Your task to perform on an android device: turn notification dots on Image 0: 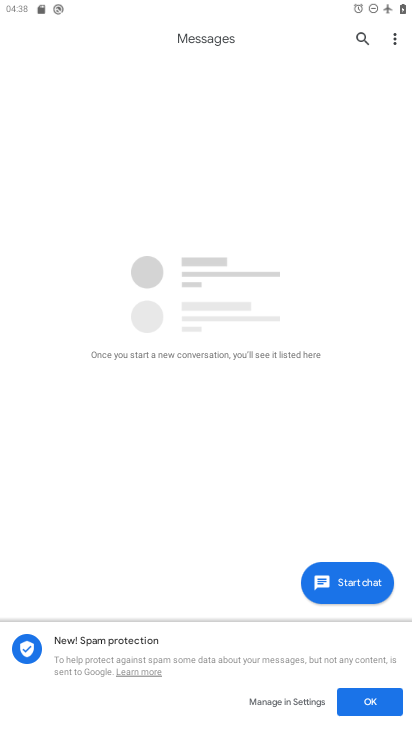
Step 0: press home button
Your task to perform on an android device: turn notification dots on Image 1: 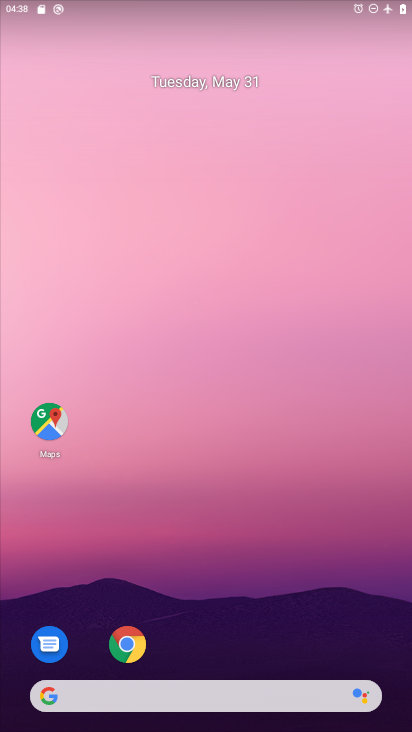
Step 1: drag from (291, 596) to (234, 162)
Your task to perform on an android device: turn notification dots on Image 2: 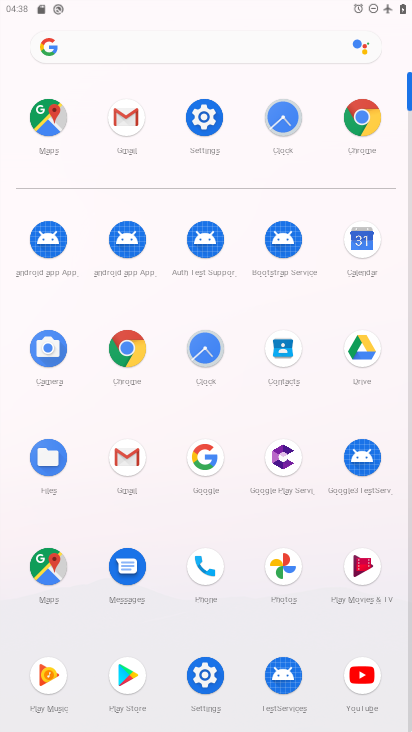
Step 2: click (207, 124)
Your task to perform on an android device: turn notification dots on Image 3: 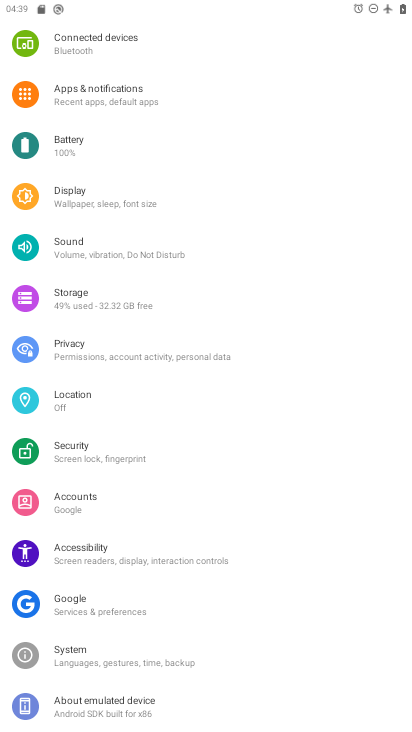
Step 3: click (118, 99)
Your task to perform on an android device: turn notification dots on Image 4: 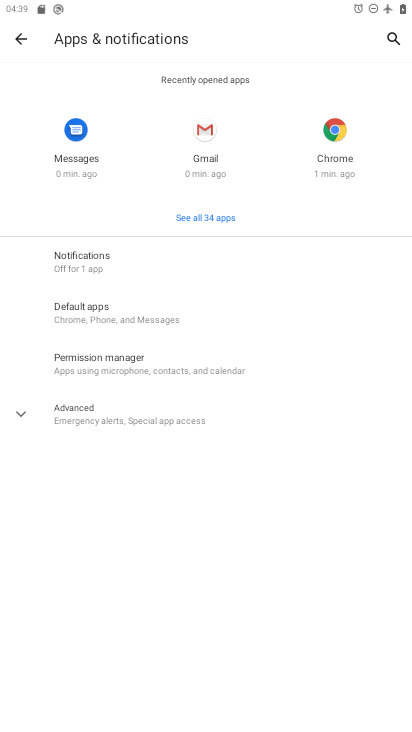
Step 4: click (126, 263)
Your task to perform on an android device: turn notification dots on Image 5: 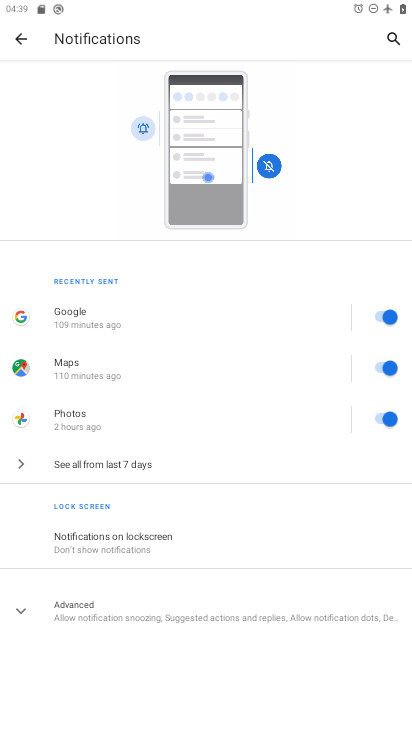
Step 5: click (49, 616)
Your task to perform on an android device: turn notification dots on Image 6: 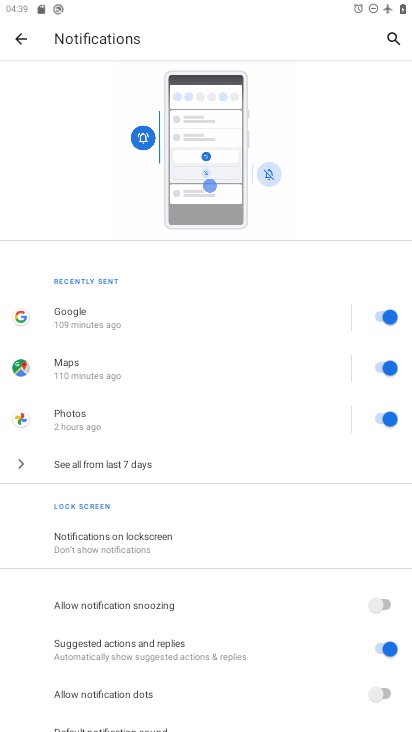
Step 6: click (390, 695)
Your task to perform on an android device: turn notification dots on Image 7: 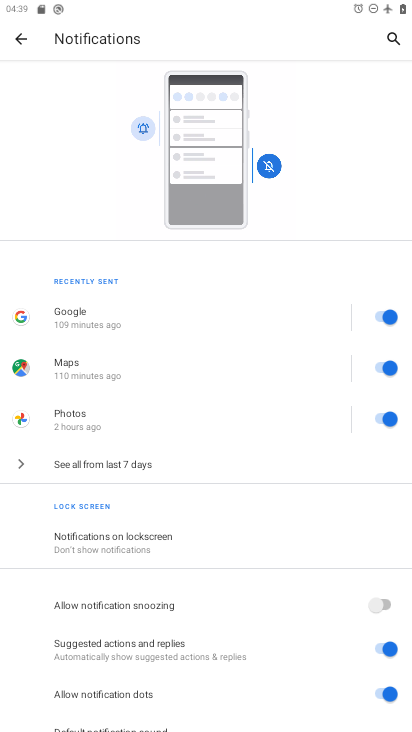
Step 7: task complete